Your task to perform on an android device: Open maps Image 0: 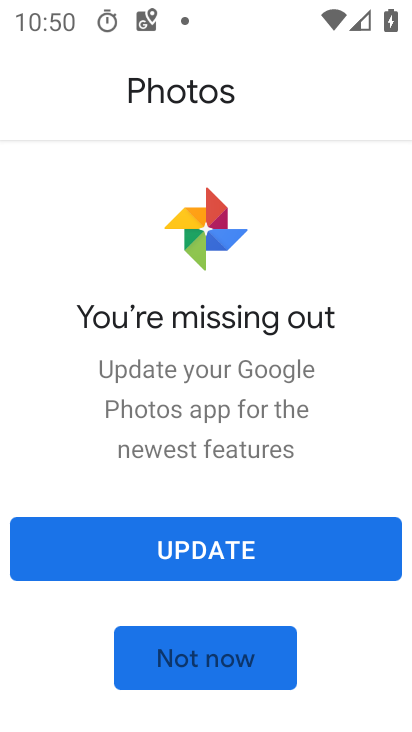
Step 0: press home button
Your task to perform on an android device: Open maps Image 1: 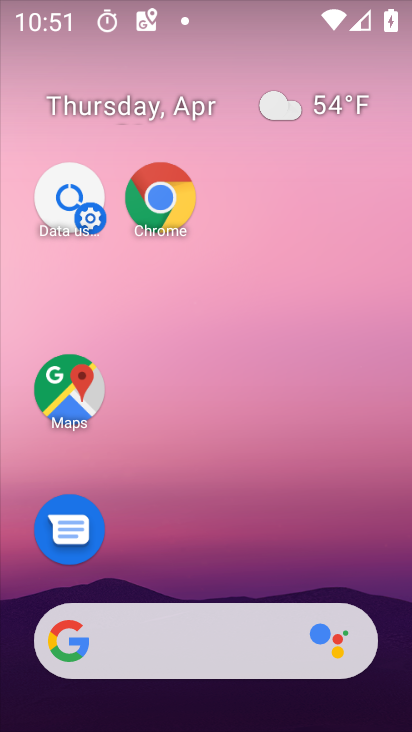
Step 1: click (71, 383)
Your task to perform on an android device: Open maps Image 2: 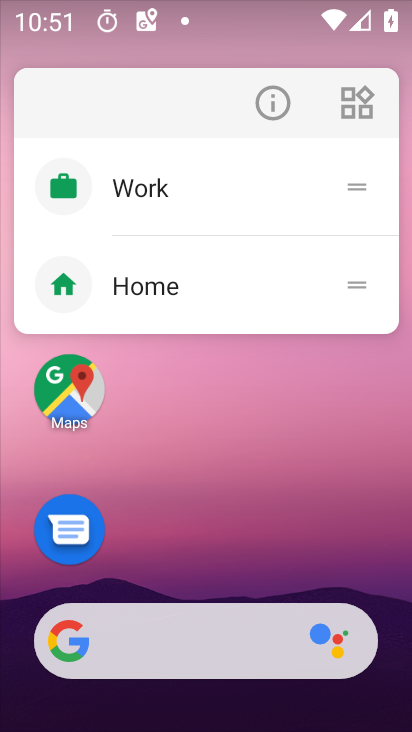
Step 2: click (81, 391)
Your task to perform on an android device: Open maps Image 3: 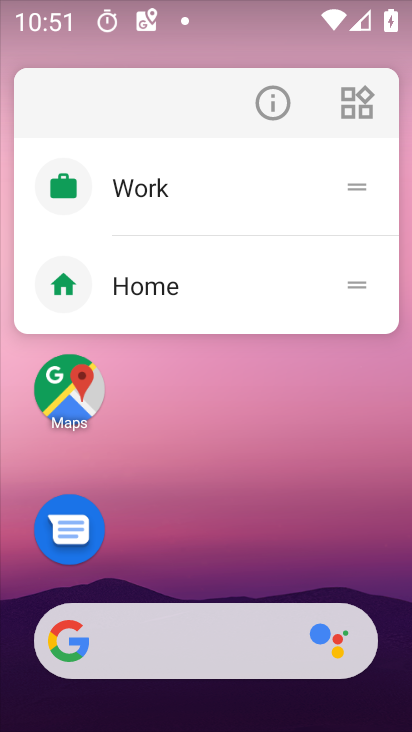
Step 3: click (75, 408)
Your task to perform on an android device: Open maps Image 4: 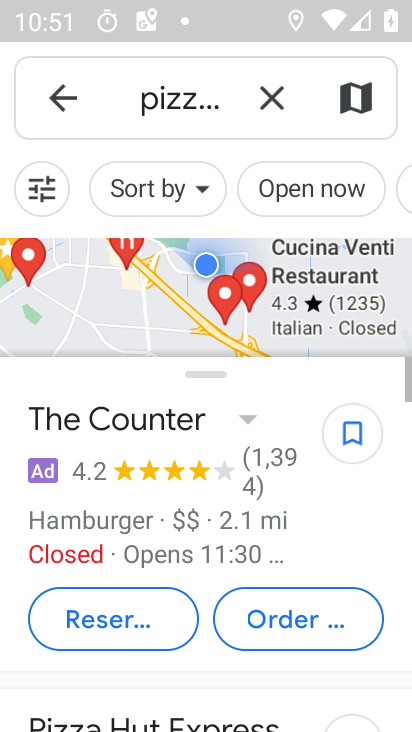
Step 4: task complete